Your task to perform on an android device: Show me popular videos on Youtube Image 0: 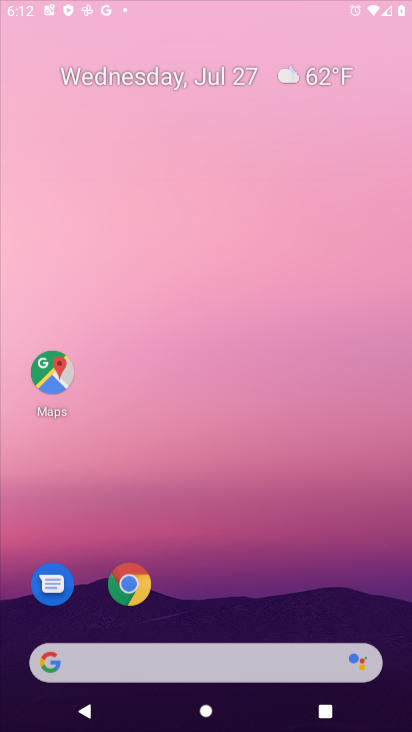
Step 0: press back button
Your task to perform on an android device: Show me popular videos on Youtube Image 1: 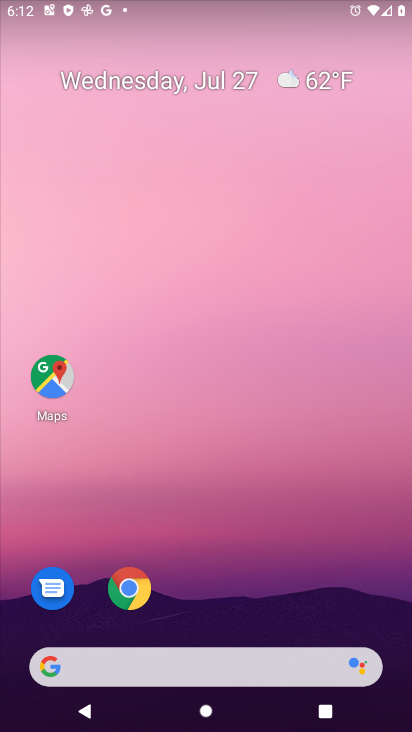
Step 1: drag from (205, 585) to (201, 190)
Your task to perform on an android device: Show me popular videos on Youtube Image 2: 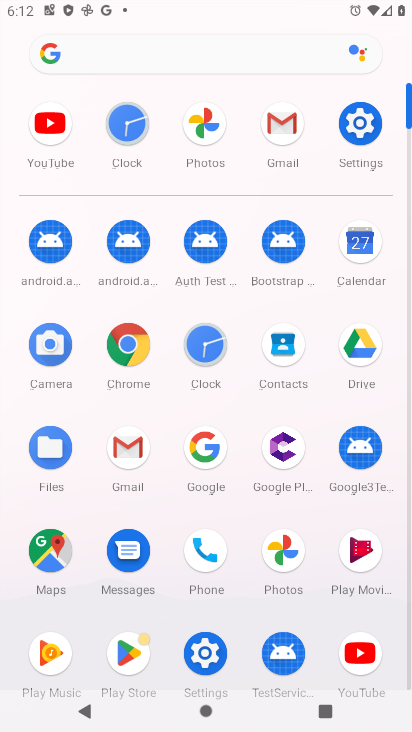
Step 2: click (356, 657)
Your task to perform on an android device: Show me popular videos on Youtube Image 3: 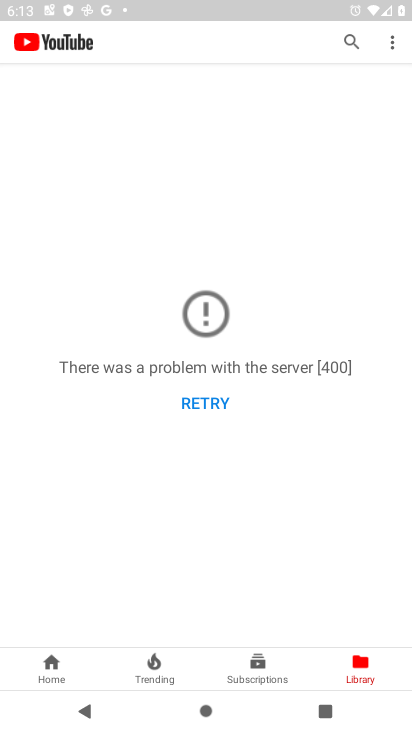
Step 3: task complete